Your task to perform on an android device: Open privacy settings Image 0: 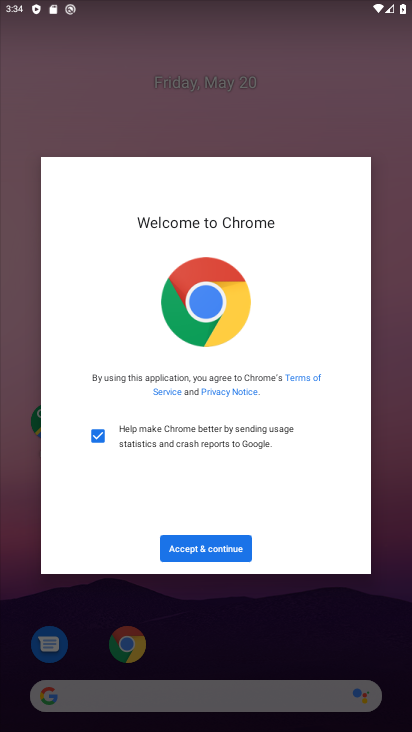
Step 0: click (207, 552)
Your task to perform on an android device: Open privacy settings Image 1: 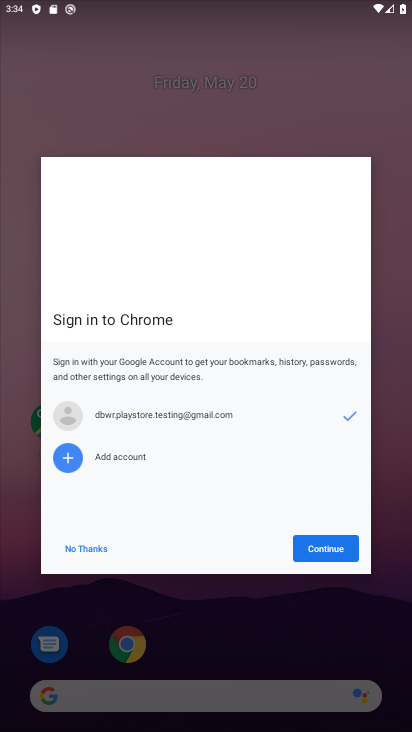
Step 1: press home button
Your task to perform on an android device: Open privacy settings Image 2: 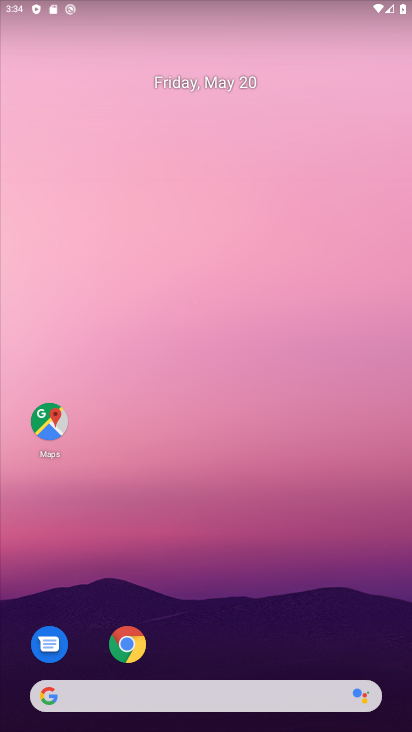
Step 2: drag from (268, 471) to (296, 66)
Your task to perform on an android device: Open privacy settings Image 3: 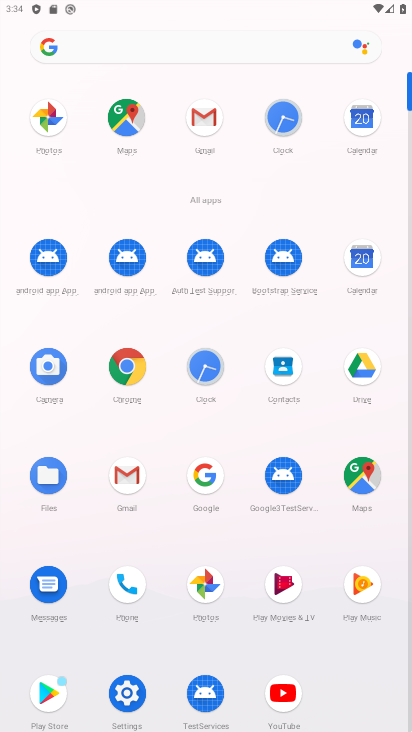
Step 3: click (129, 686)
Your task to perform on an android device: Open privacy settings Image 4: 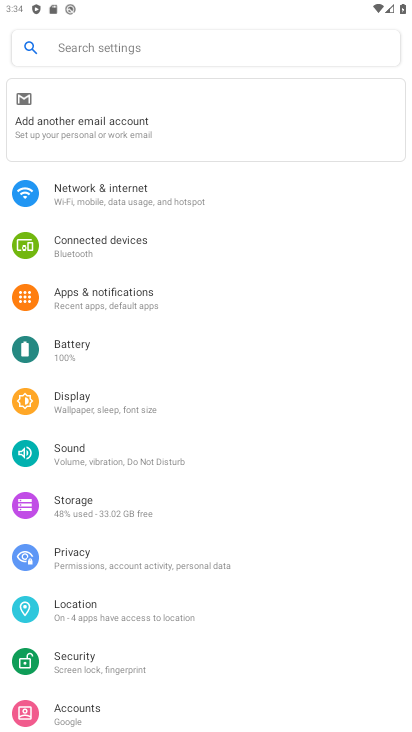
Step 4: click (99, 567)
Your task to perform on an android device: Open privacy settings Image 5: 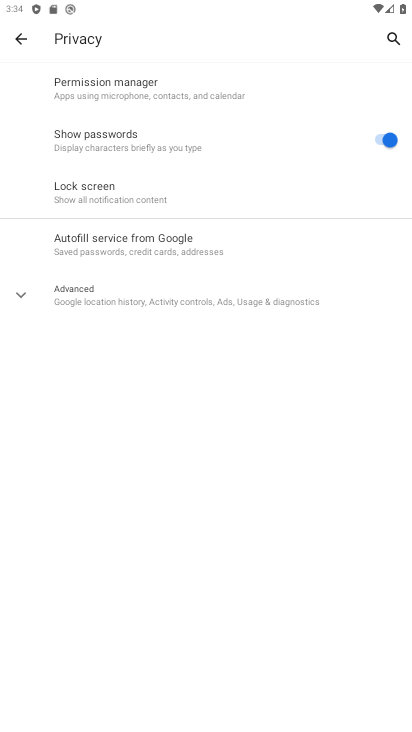
Step 5: task complete